Your task to perform on an android device: toggle priority inbox in the gmail app Image 0: 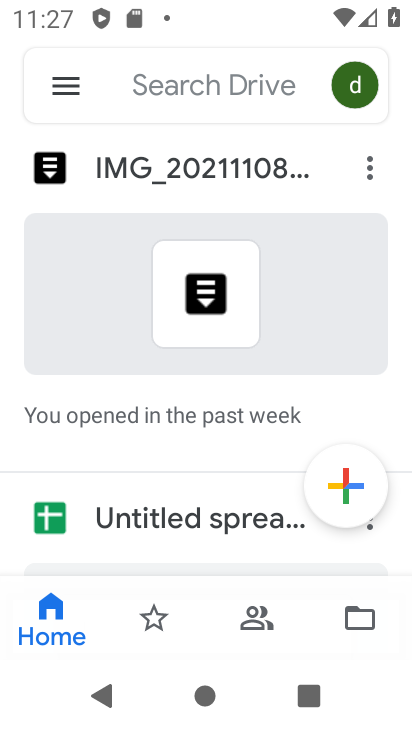
Step 0: press home button
Your task to perform on an android device: toggle priority inbox in the gmail app Image 1: 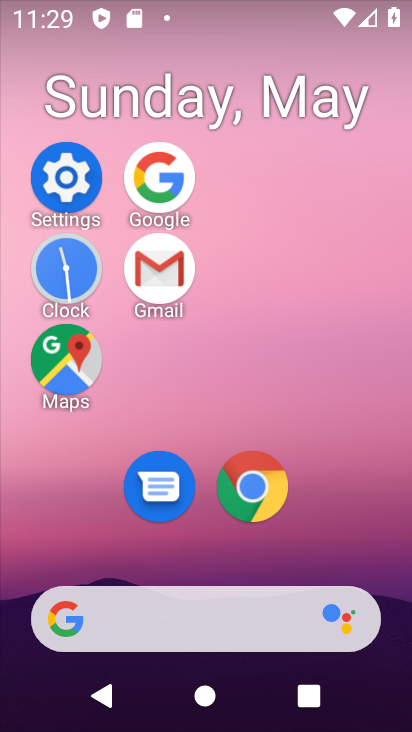
Step 1: click (163, 276)
Your task to perform on an android device: toggle priority inbox in the gmail app Image 2: 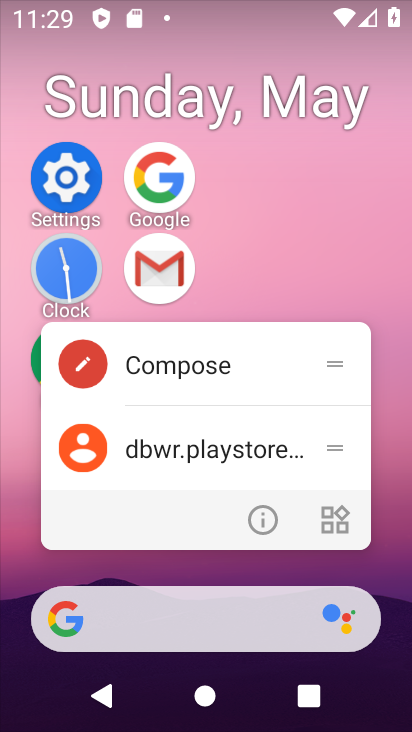
Step 2: click (163, 276)
Your task to perform on an android device: toggle priority inbox in the gmail app Image 3: 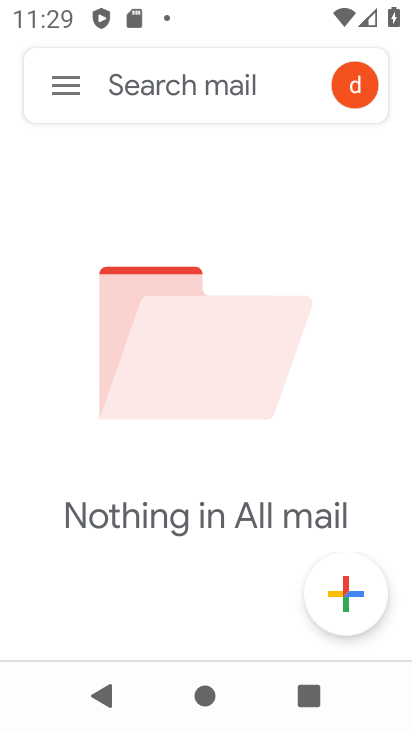
Step 3: click (47, 77)
Your task to perform on an android device: toggle priority inbox in the gmail app Image 4: 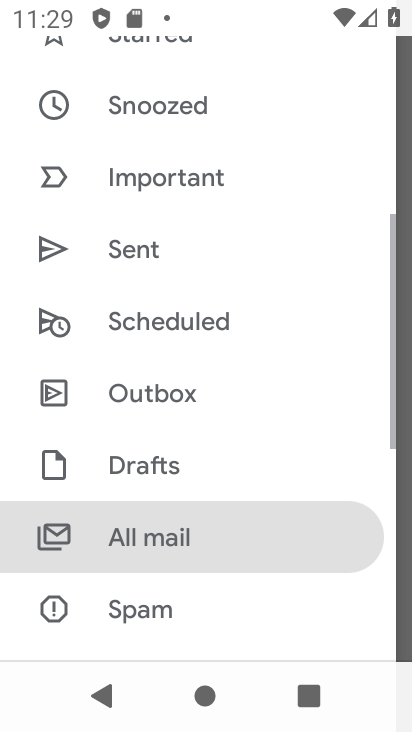
Step 4: drag from (208, 445) to (248, 103)
Your task to perform on an android device: toggle priority inbox in the gmail app Image 5: 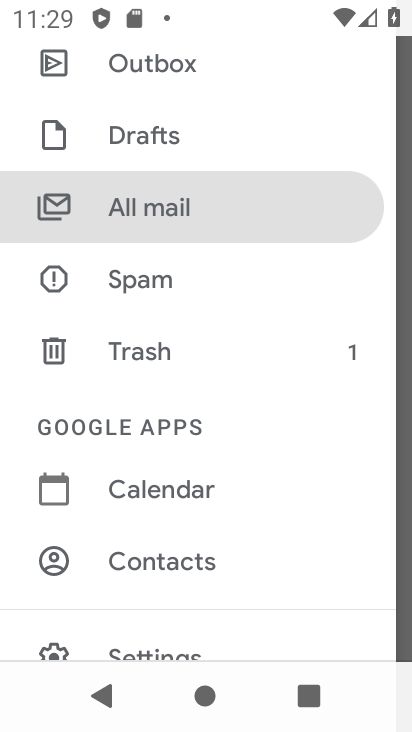
Step 5: drag from (229, 445) to (246, 160)
Your task to perform on an android device: toggle priority inbox in the gmail app Image 6: 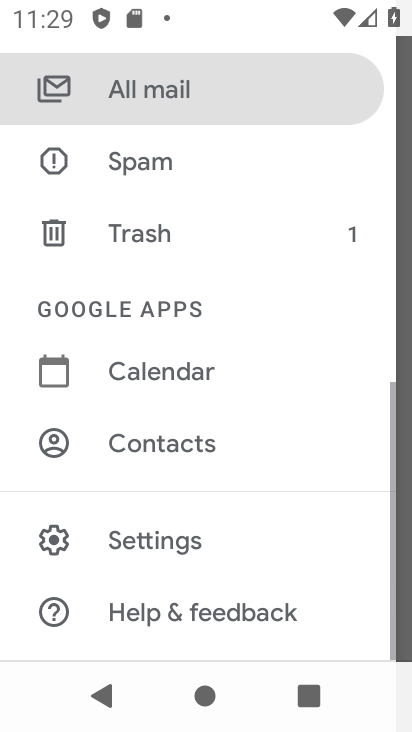
Step 6: click (178, 520)
Your task to perform on an android device: toggle priority inbox in the gmail app Image 7: 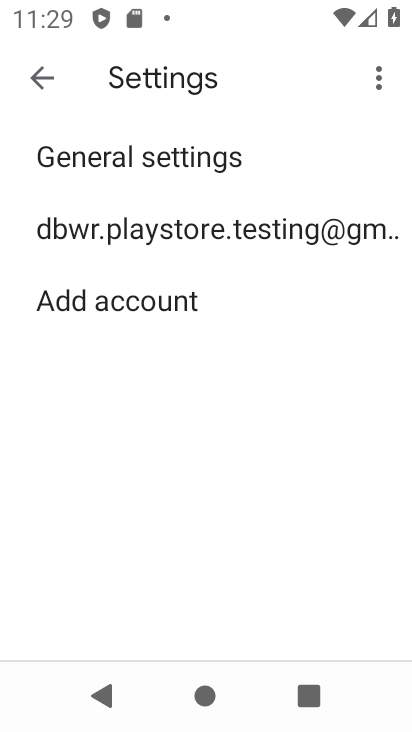
Step 7: click (272, 245)
Your task to perform on an android device: toggle priority inbox in the gmail app Image 8: 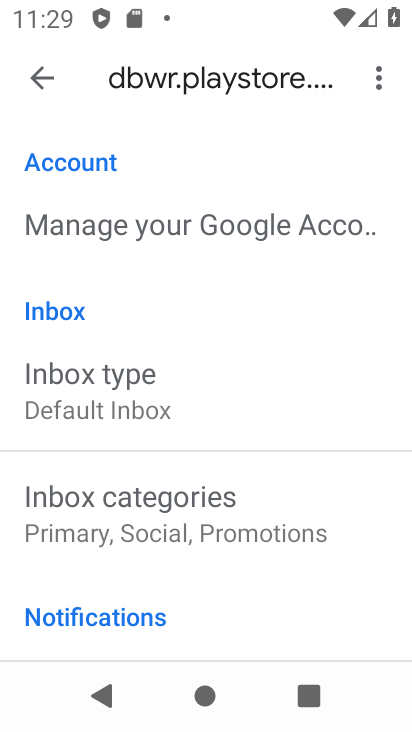
Step 8: click (169, 404)
Your task to perform on an android device: toggle priority inbox in the gmail app Image 9: 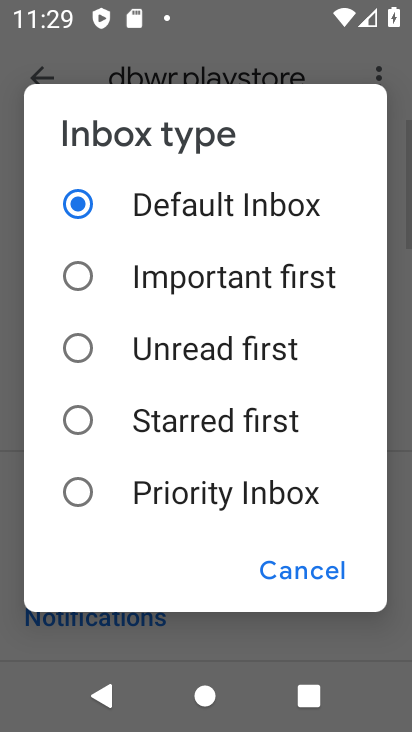
Step 9: click (148, 490)
Your task to perform on an android device: toggle priority inbox in the gmail app Image 10: 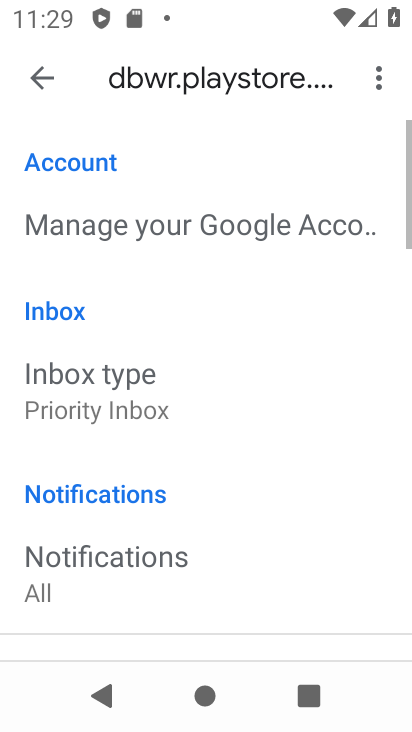
Step 10: task complete